Your task to perform on an android device: Open calendar and show me the second week of next month Image 0: 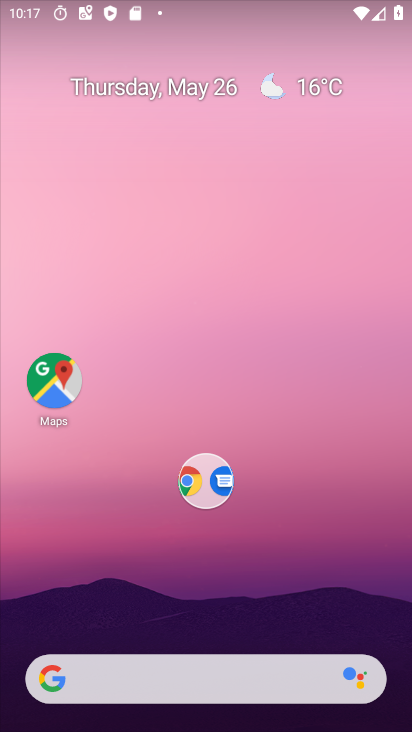
Step 0: click (126, 83)
Your task to perform on an android device: Open calendar and show me the second week of next month Image 1: 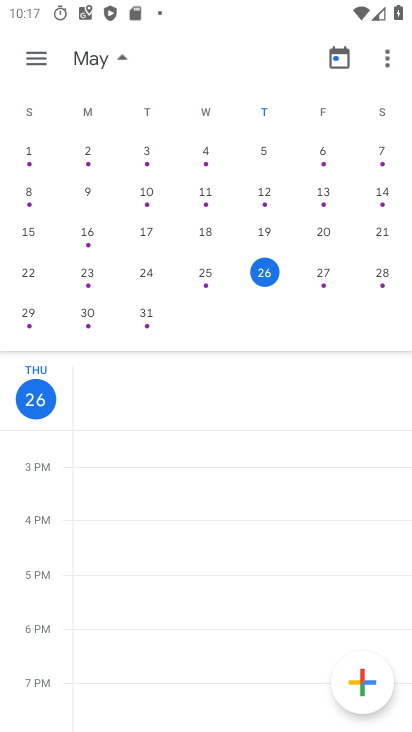
Step 1: drag from (369, 329) to (24, 262)
Your task to perform on an android device: Open calendar and show me the second week of next month Image 2: 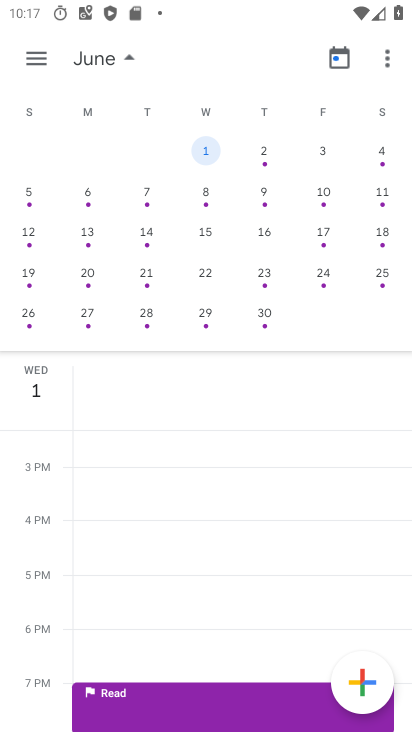
Step 2: click (205, 200)
Your task to perform on an android device: Open calendar and show me the second week of next month Image 3: 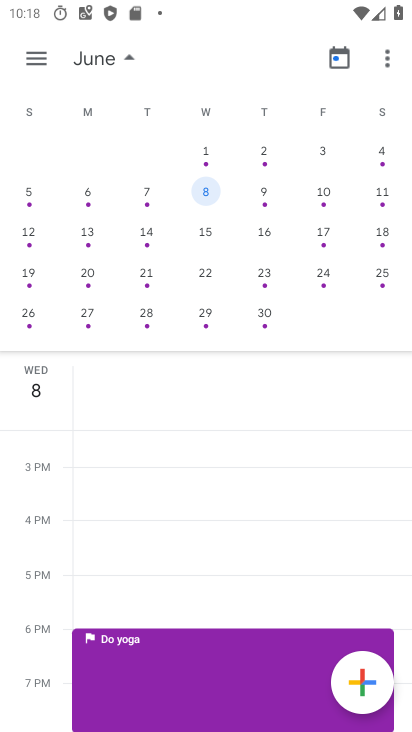
Step 3: task complete